Your task to perform on an android device: toggle priority inbox in the gmail app Image 0: 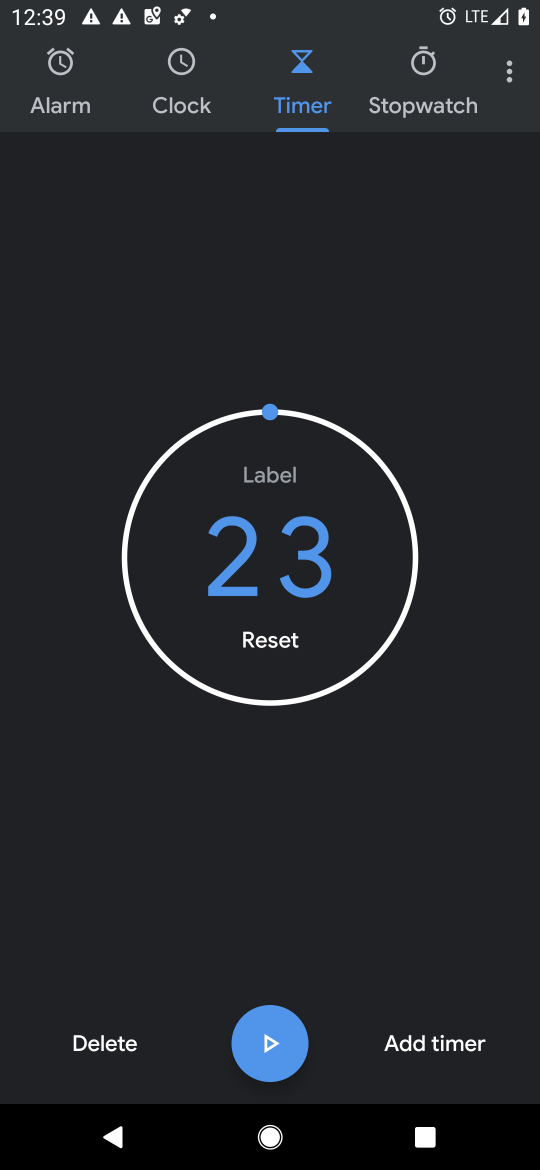
Step 0: press home button
Your task to perform on an android device: toggle priority inbox in the gmail app Image 1: 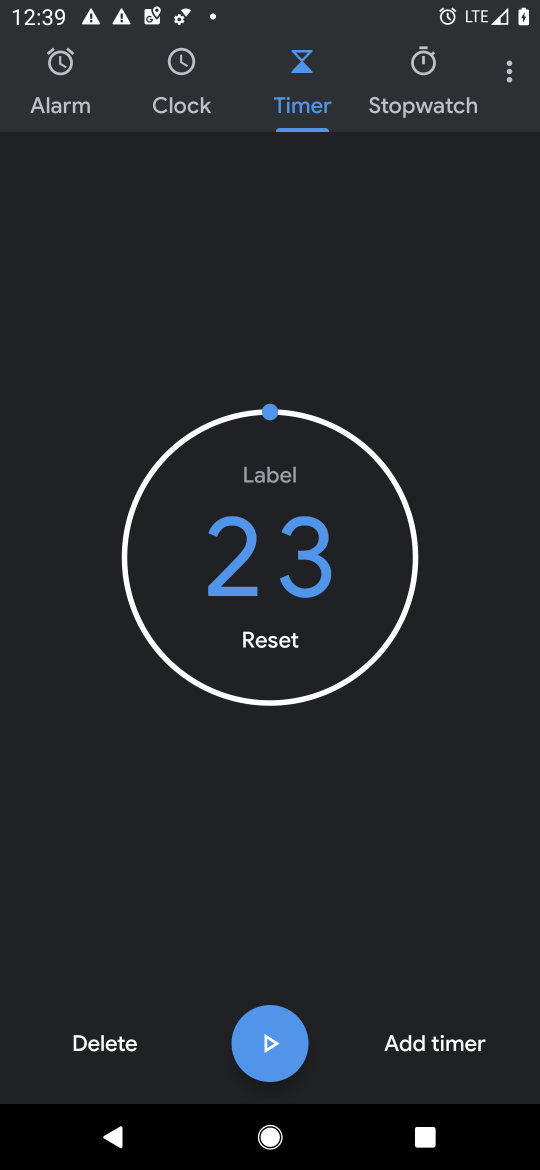
Step 1: click (327, 106)
Your task to perform on an android device: toggle priority inbox in the gmail app Image 2: 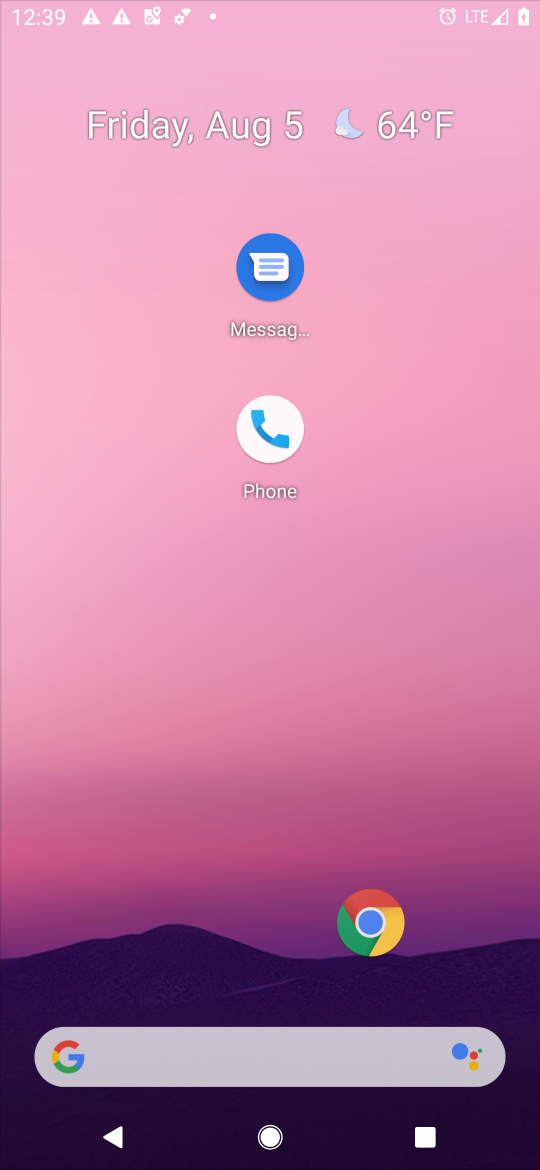
Step 2: drag from (193, 909) to (234, 314)
Your task to perform on an android device: toggle priority inbox in the gmail app Image 3: 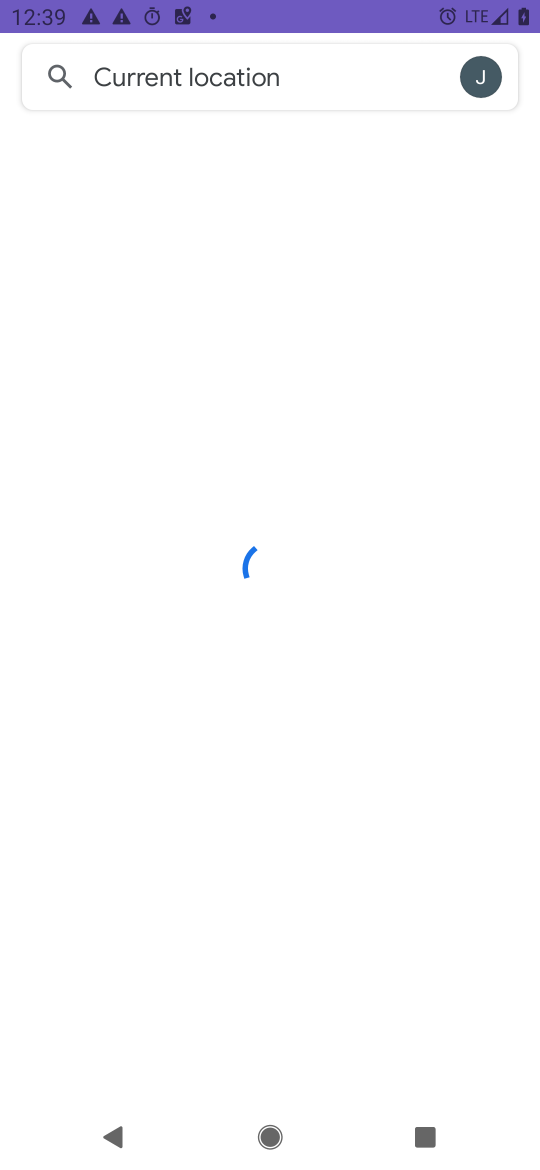
Step 3: press home button
Your task to perform on an android device: toggle priority inbox in the gmail app Image 4: 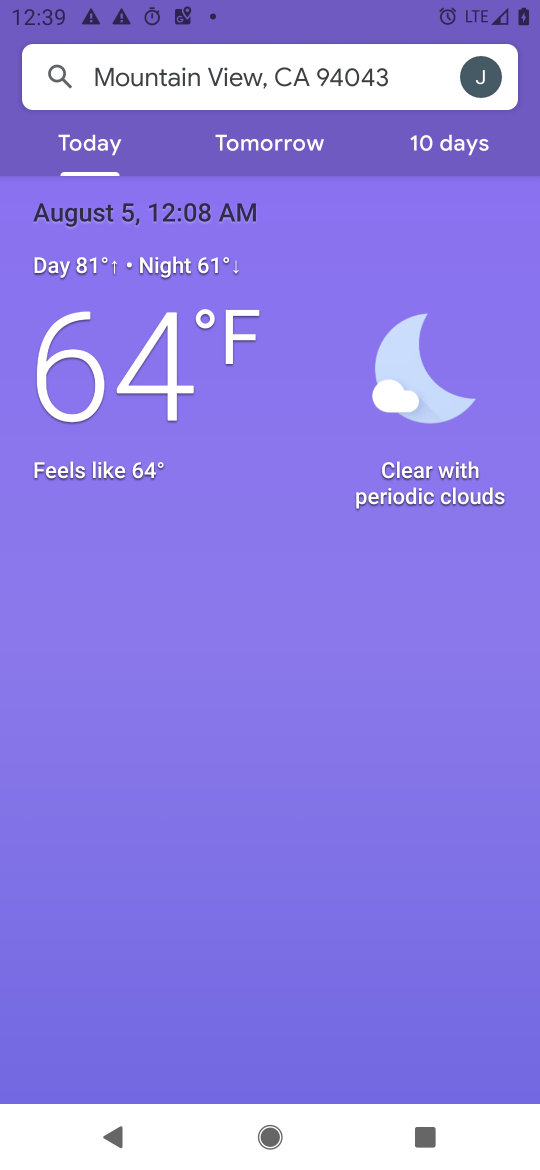
Step 4: drag from (280, 1012) to (467, 287)
Your task to perform on an android device: toggle priority inbox in the gmail app Image 5: 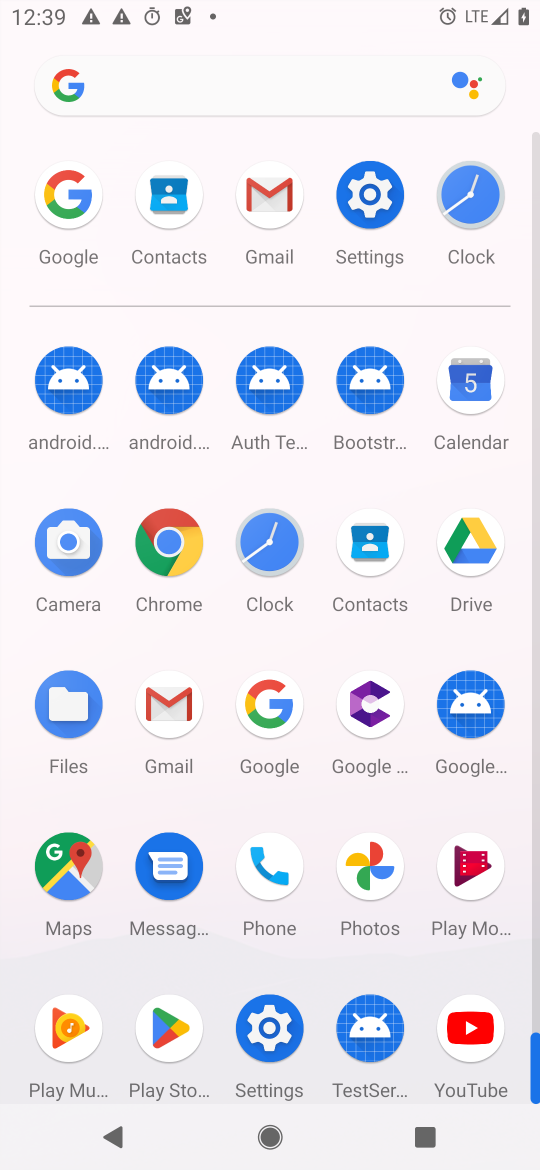
Step 5: click (172, 704)
Your task to perform on an android device: toggle priority inbox in the gmail app Image 6: 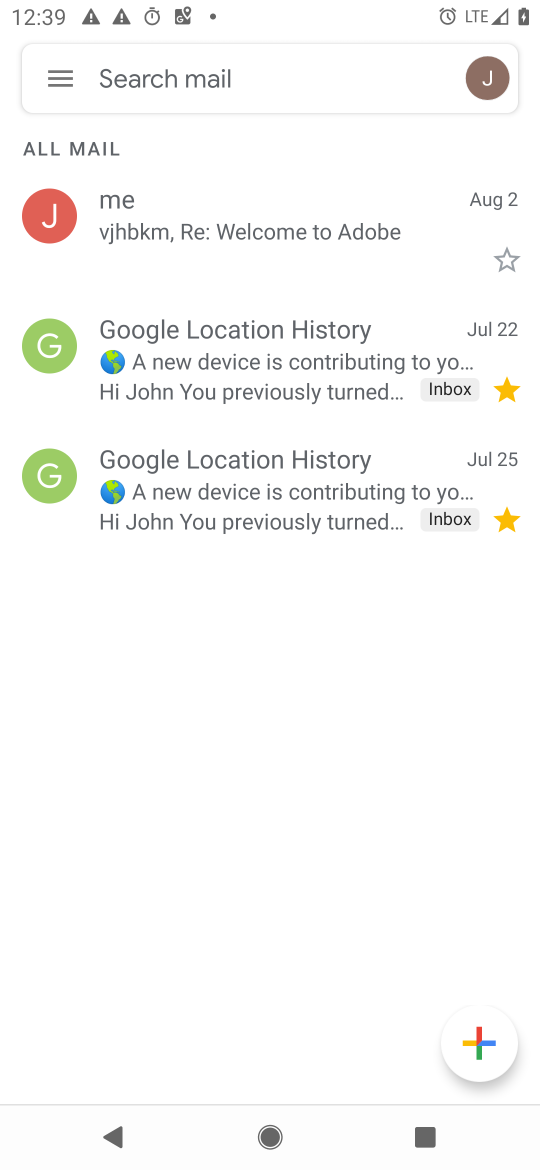
Step 6: click (70, 63)
Your task to perform on an android device: toggle priority inbox in the gmail app Image 7: 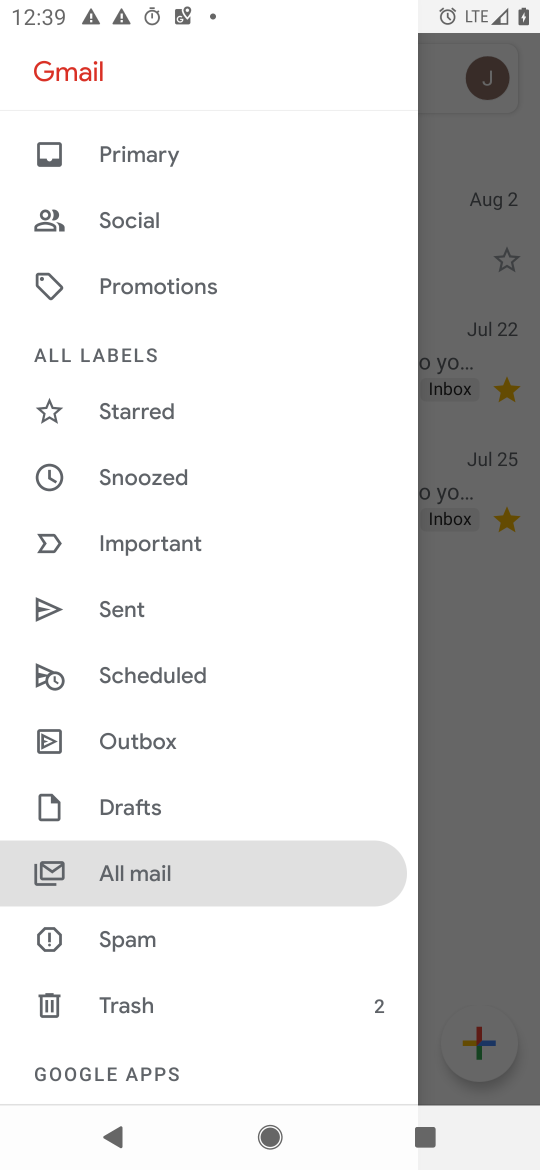
Step 7: drag from (165, 751) to (249, 372)
Your task to perform on an android device: toggle priority inbox in the gmail app Image 8: 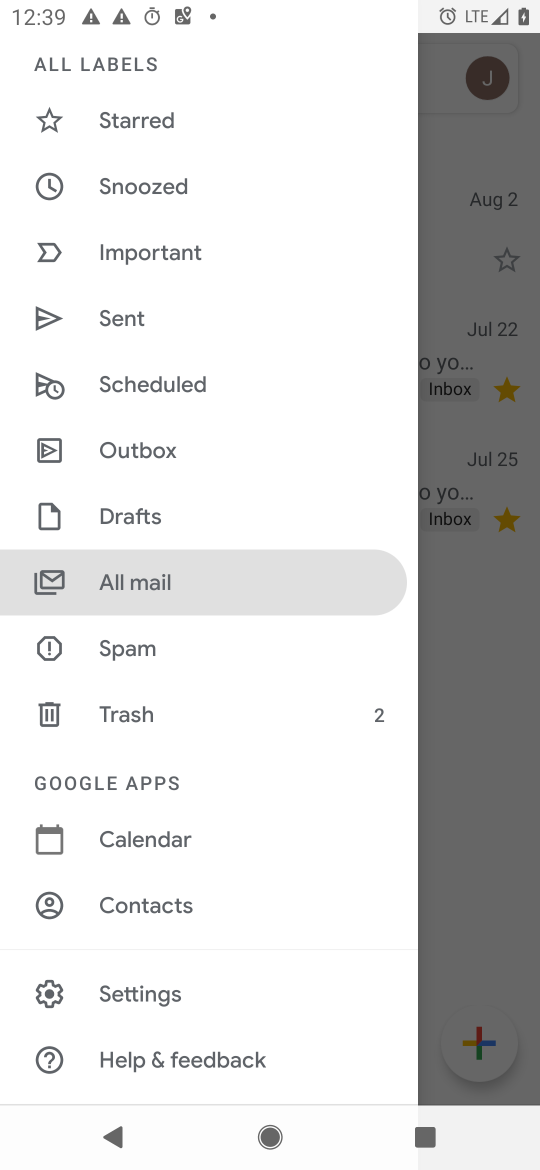
Step 8: click (139, 986)
Your task to perform on an android device: toggle priority inbox in the gmail app Image 9: 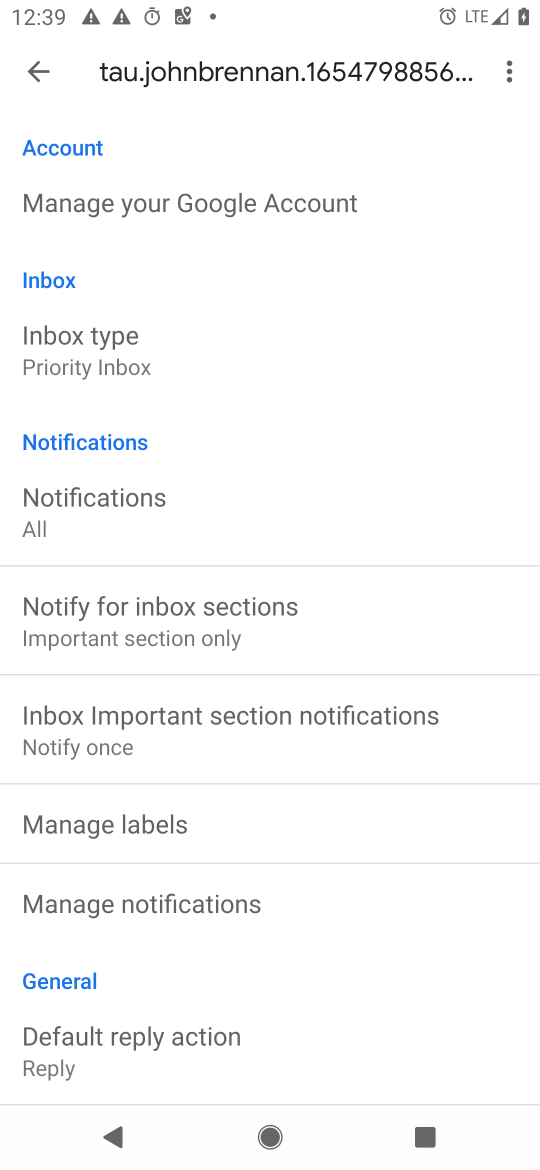
Step 9: click (226, 344)
Your task to perform on an android device: toggle priority inbox in the gmail app Image 10: 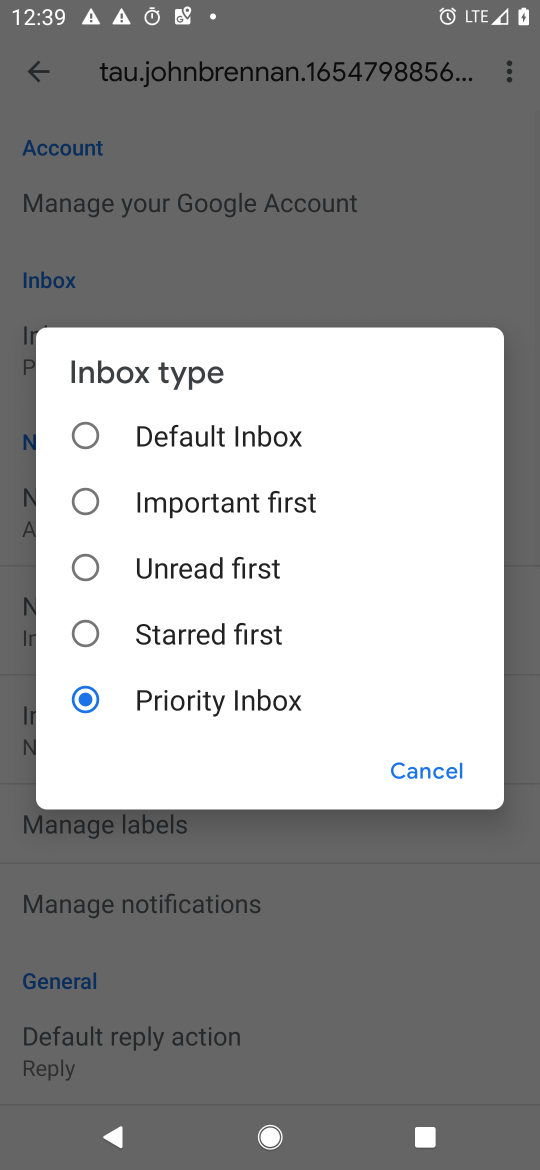
Step 10: click (89, 429)
Your task to perform on an android device: toggle priority inbox in the gmail app Image 11: 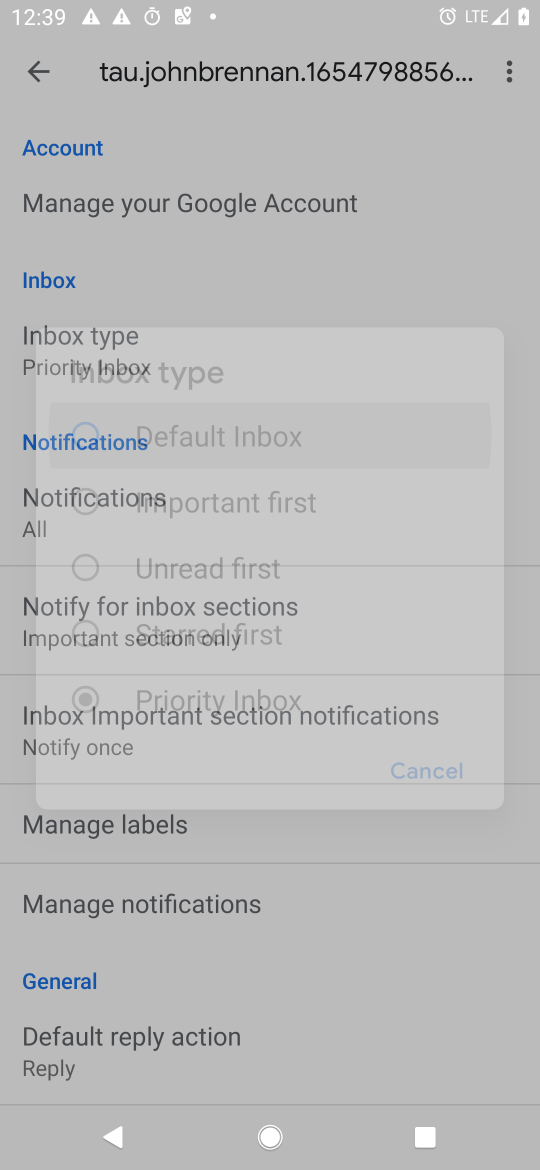
Step 11: task complete